Your task to perform on an android device: Go to Wikipedia Image 0: 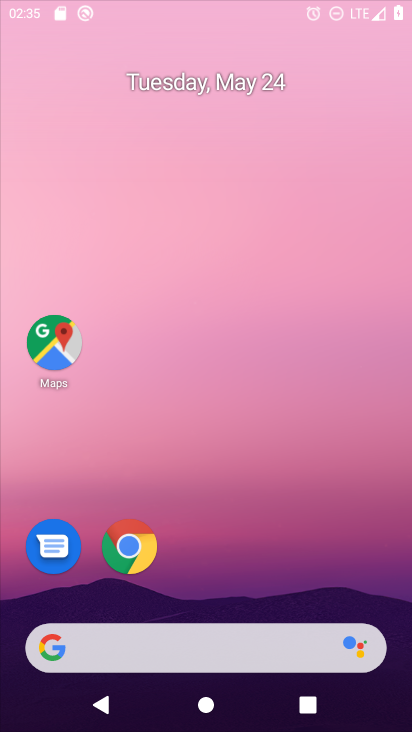
Step 0: drag from (259, 662) to (331, 42)
Your task to perform on an android device: Go to Wikipedia Image 1: 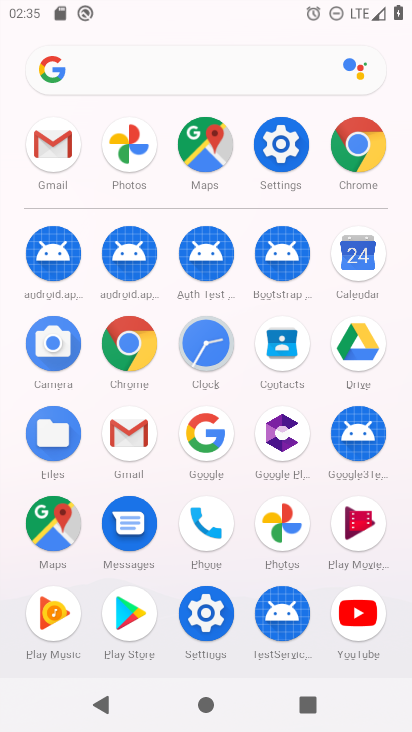
Step 1: click (286, 149)
Your task to perform on an android device: Go to Wikipedia Image 2: 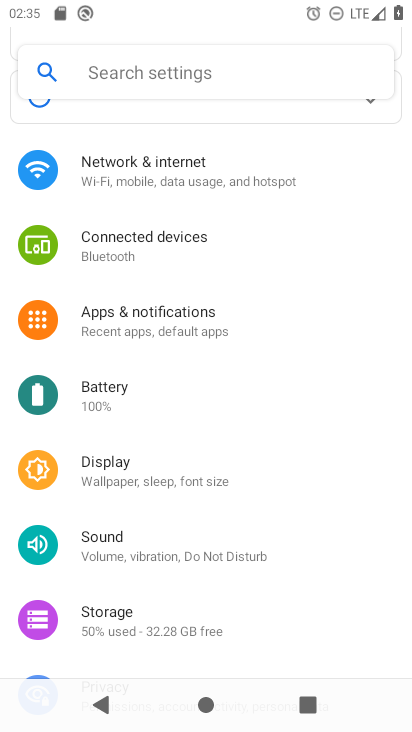
Step 2: click (189, 162)
Your task to perform on an android device: Go to Wikipedia Image 3: 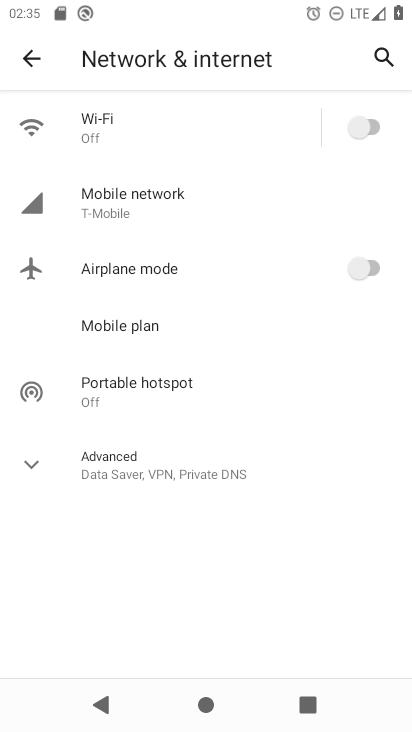
Step 3: press back button
Your task to perform on an android device: Go to Wikipedia Image 4: 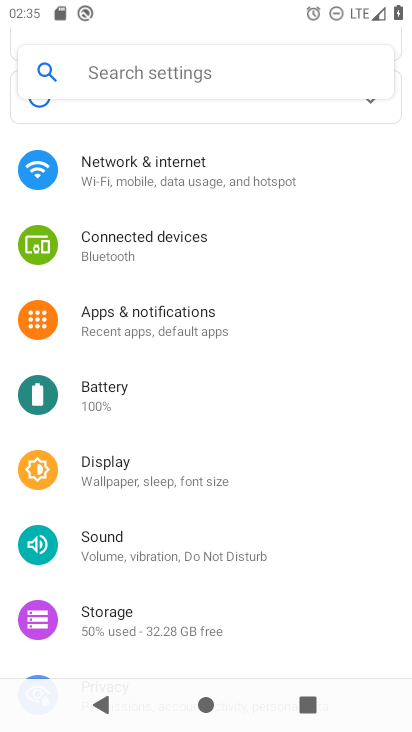
Step 4: press home button
Your task to perform on an android device: Go to Wikipedia Image 5: 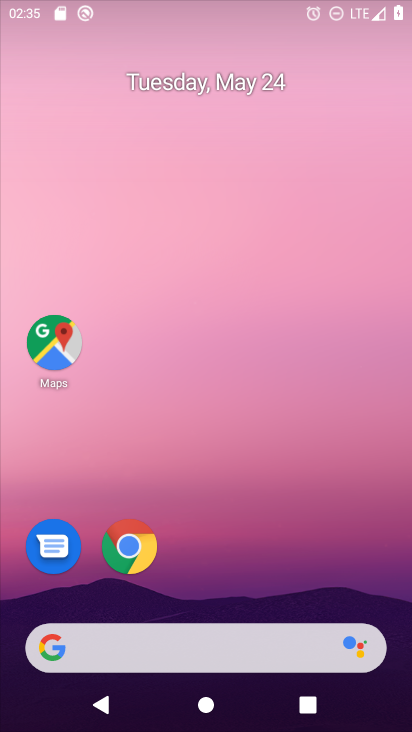
Step 5: drag from (288, 651) to (336, 24)
Your task to perform on an android device: Go to Wikipedia Image 6: 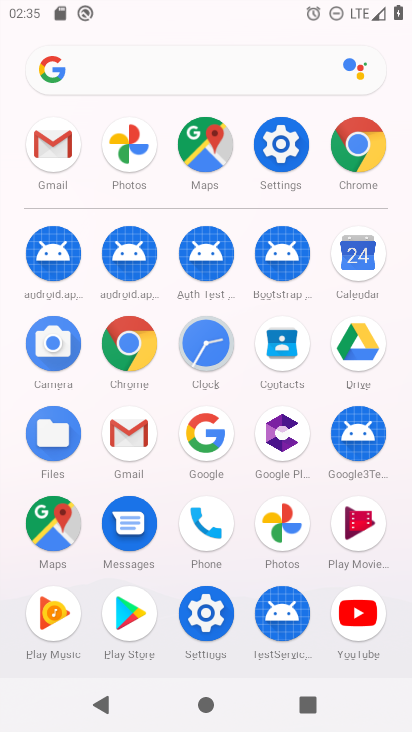
Step 6: click (113, 342)
Your task to perform on an android device: Go to Wikipedia Image 7: 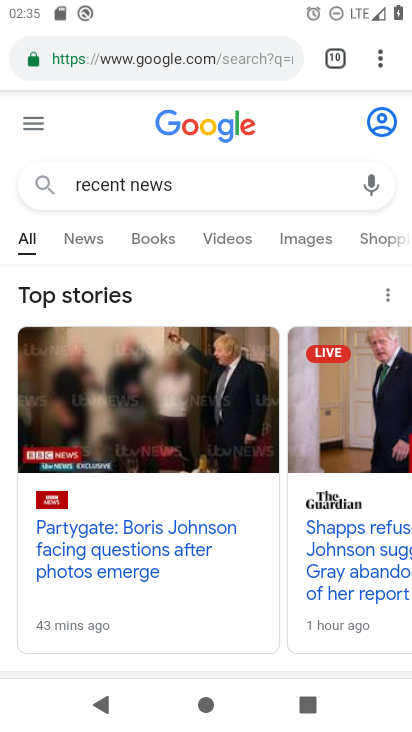
Step 7: click (324, 64)
Your task to perform on an android device: Go to Wikipedia Image 8: 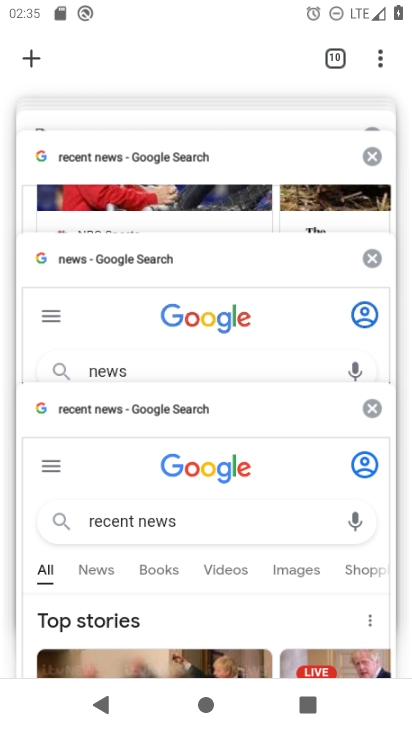
Step 8: drag from (206, 232) to (178, 725)
Your task to perform on an android device: Go to Wikipedia Image 9: 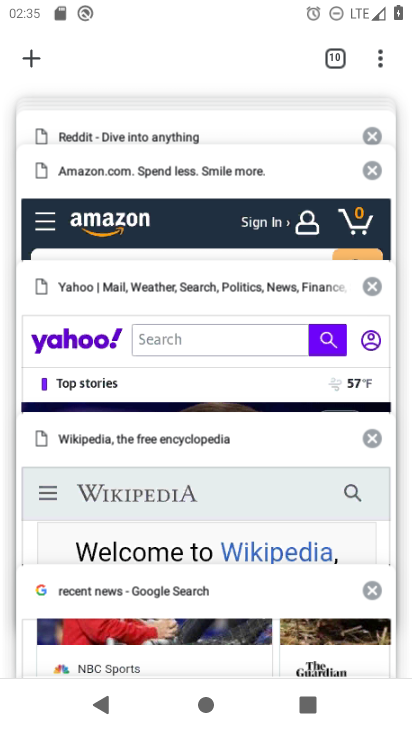
Step 9: click (155, 508)
Your task to perform on an android device: Go to Wikipedia Image 10: 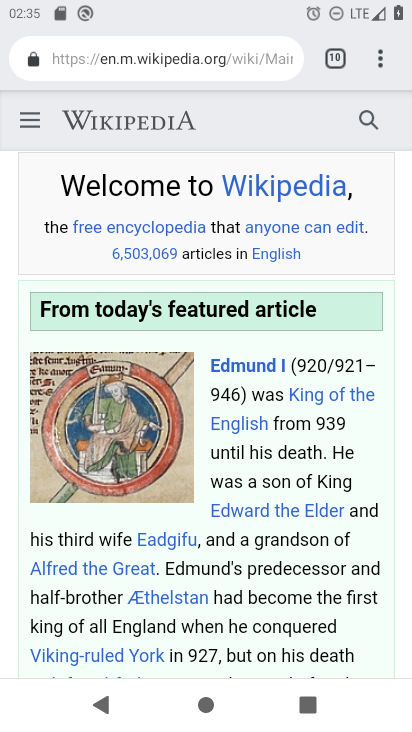
Step 10: task complete